Your task to perform on an android device: change text size in settings app Image 0: 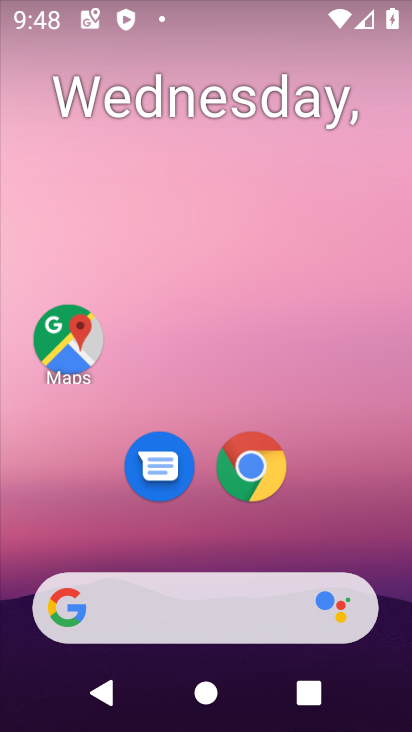
Step 0: drag from (355, 558) to (111, 226)
Your task to perform on an android device: change text size in settings app Image 1: 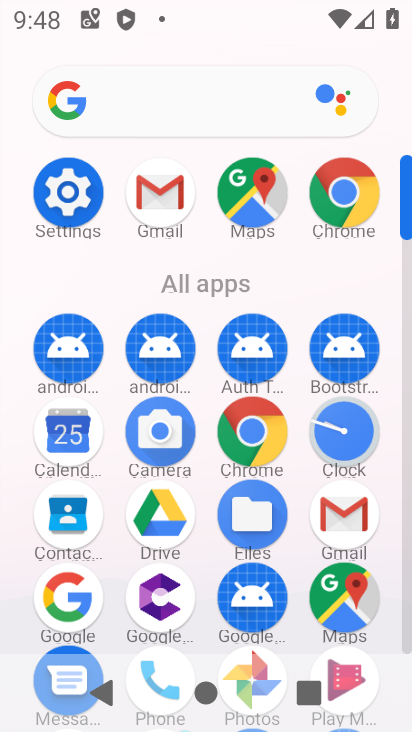
Step 1: click (73, 207)
Your task to perform on an android device: change text size in settings app Image 2: 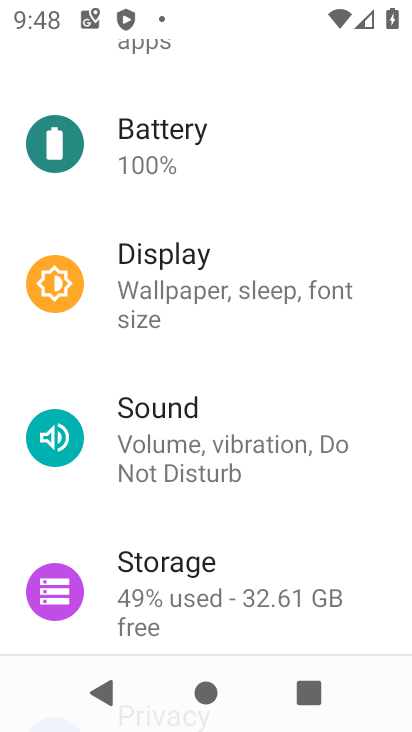
Step 2: click (174, 302)
Your task to perform on an android device: change text size in settings app Image 3: 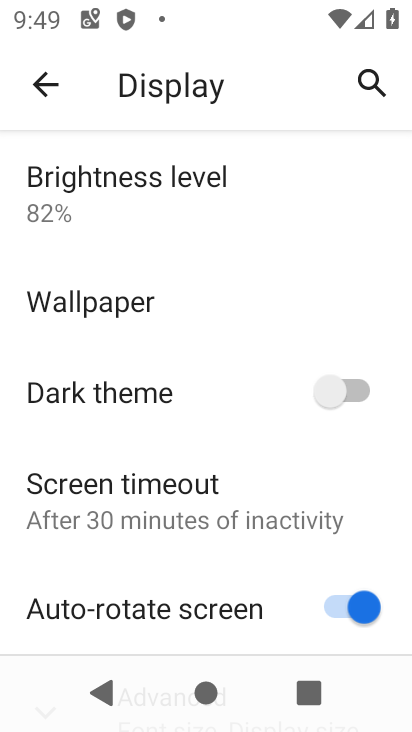
Step 3: drag from (138, 604) to (101, 257)
Your task to perform on an android device: change text size in settings app Image 4: 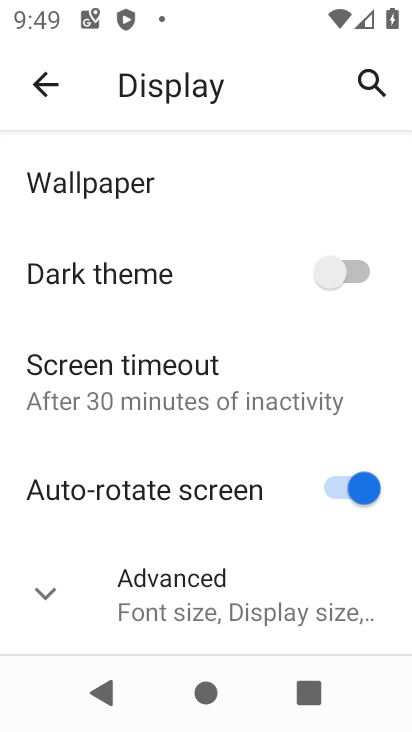
Step 4: click (182, 608)
Your task to perform on an android device: change text size in settings app Image 5: 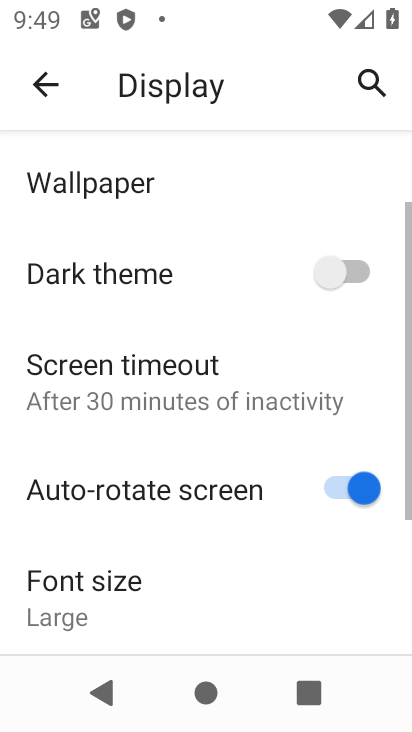
Step 5: click (182, 608)
Your task to perform on an android device: change text size in settings app Image 6: 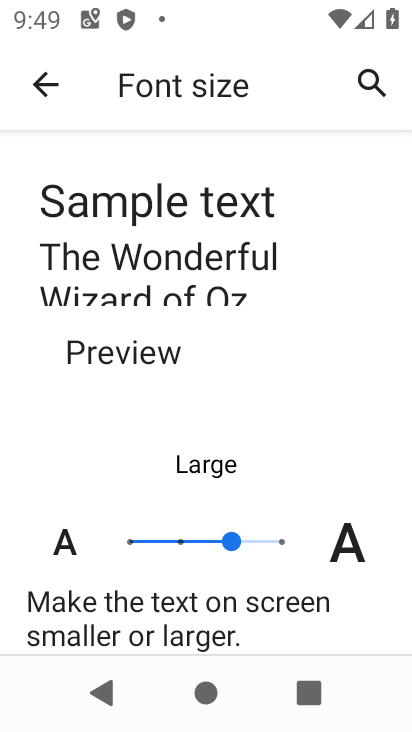
Step 6: click (131, 541)
Your task to perform on an android device: change text size in settings app Image 7: 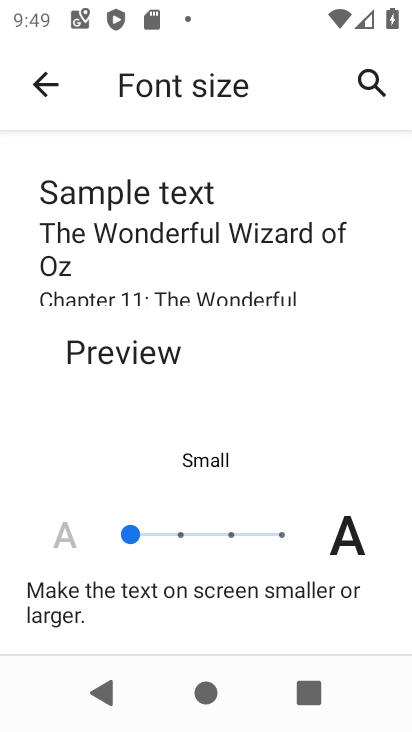
Step 7: task complete